Your task to perform on an android device: What is the news today? Image 0: 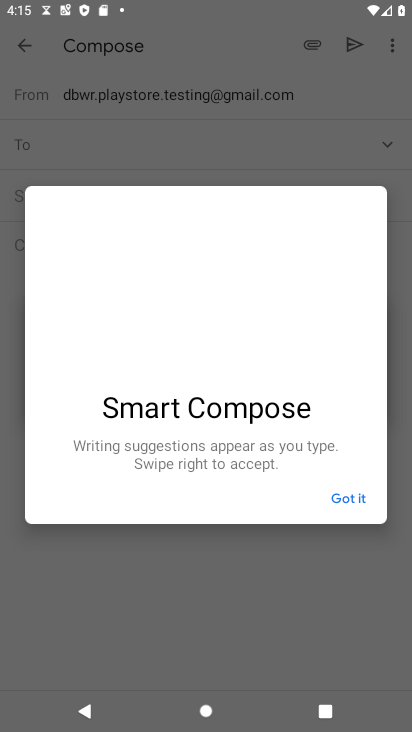
Step 0: press home button
Your task to perform on an android device: What is the news today? Image 1: 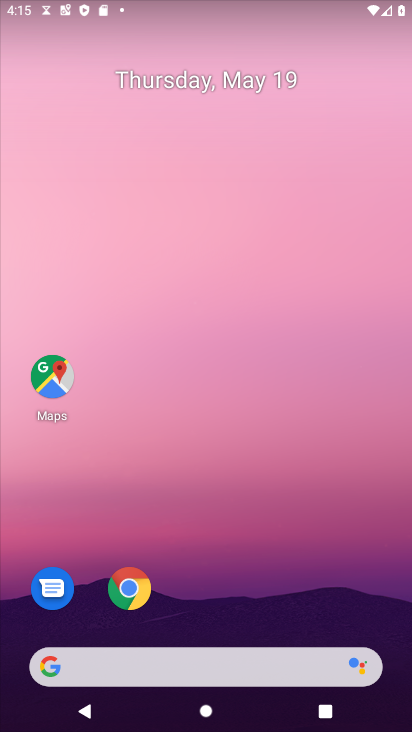
Step 1: click (179, 659)
Your task to perform on an android device: What is the news today? Image 2: 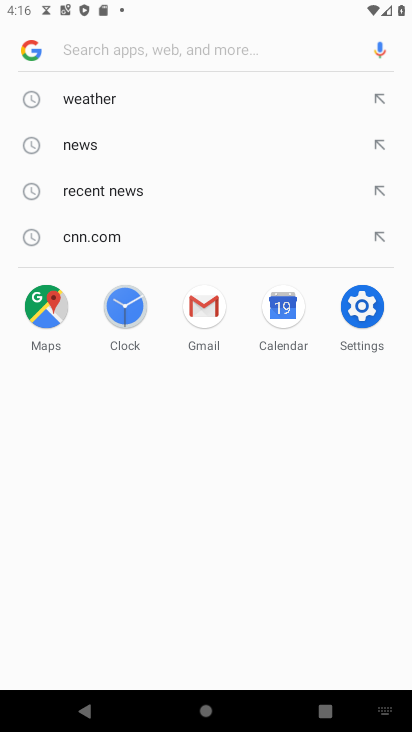
Step 2: type "news today"
Your task to perform on an android device: What is the news today? Image 3: 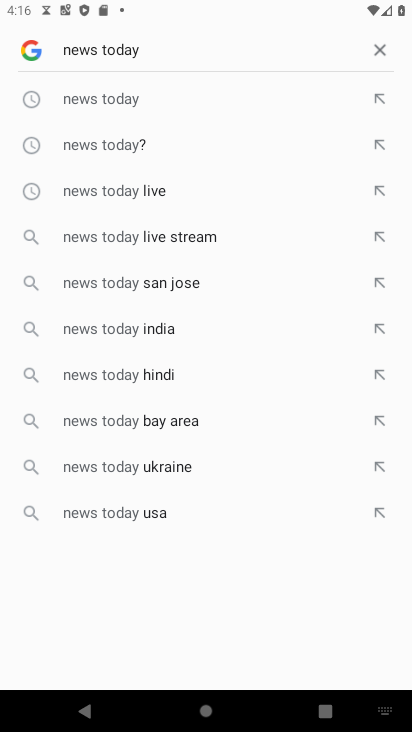
Step 3: click (132, 158)
Your task to perform on an android device: What is the news today? Image 4: 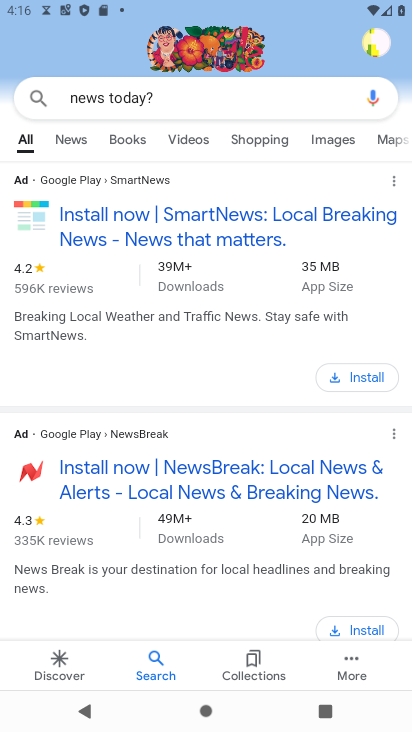
Step 4: task complete